Your task to perform on an android device: See recent photos Image 0: 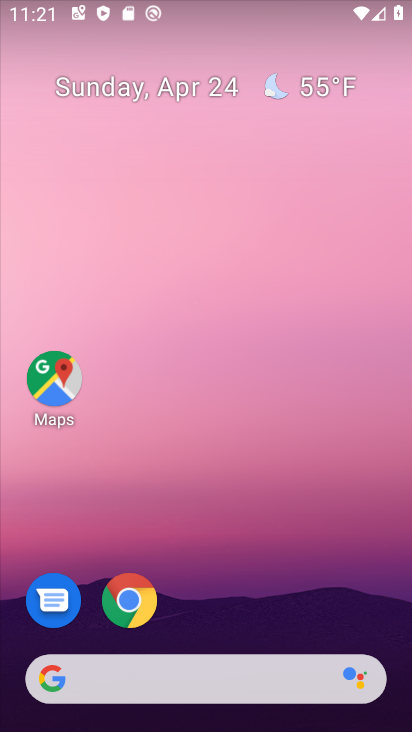
Step 0: drag from (233, 628) to (278, 201)
Your task to perform on an android device: See recent photos Image 1: 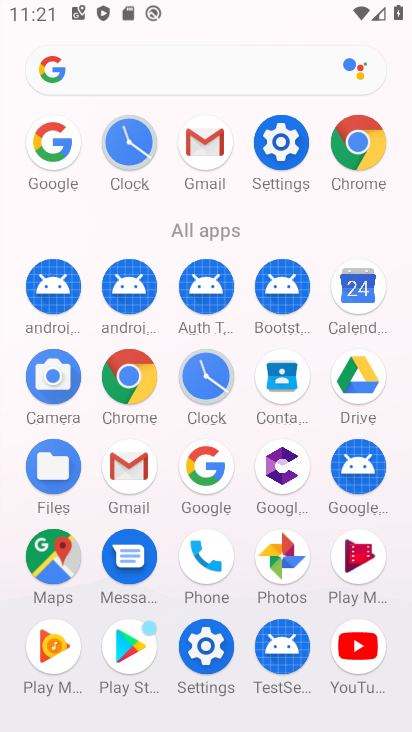
Step 1: click (278, 558)
Your task to perform on an android device: See recent photos Image 2: 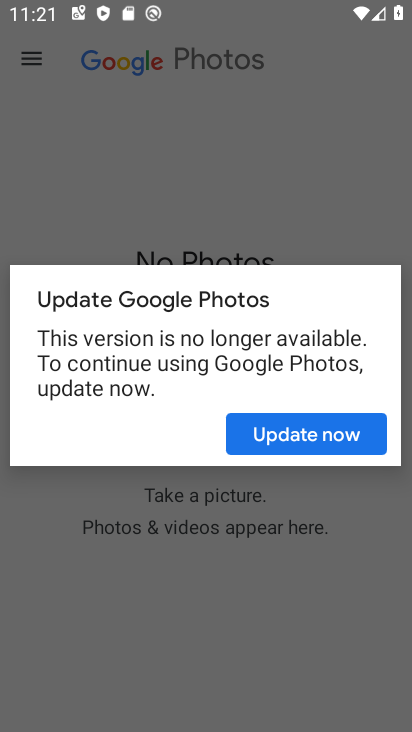
Step 2: click (283, 442)
Your task to perform on an android device: See recent photos Image 3: 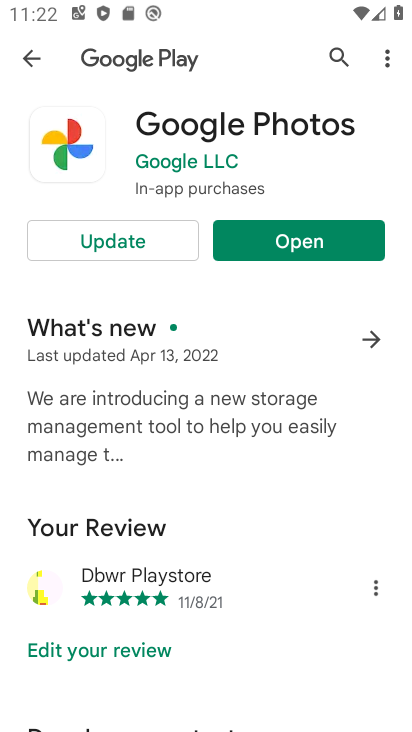
Step 3: click (46, 74)
Your task to perform on an android device: See recent photos Image 4: 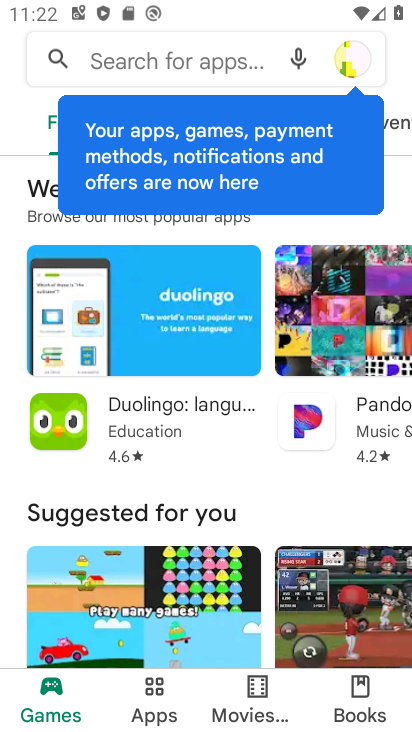
Step 4: press back button
Your task to perform on an android device: See recent photos Image 5: 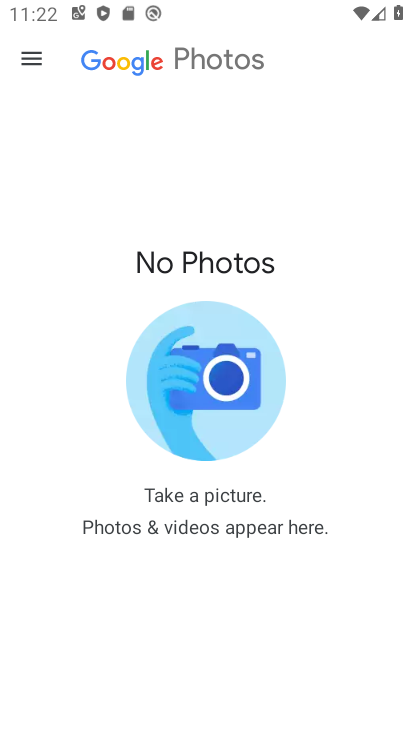
Step 5: click (33, 59)
Your task to perform on an android device: See recent photos Image 6: 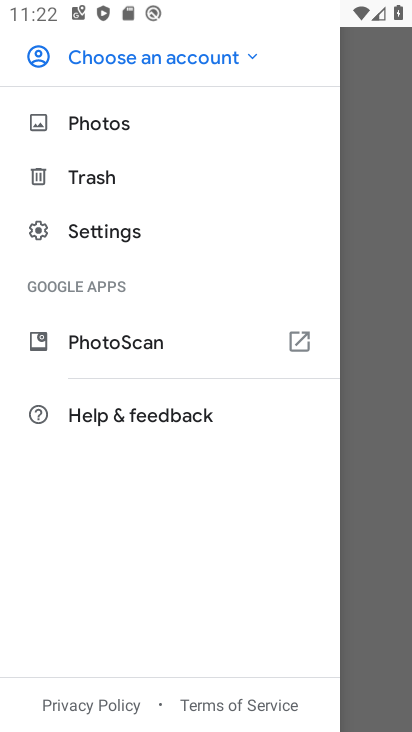
Step 6: click (150, 68)
Your task to perform on an android device: See recent photos Image 7: 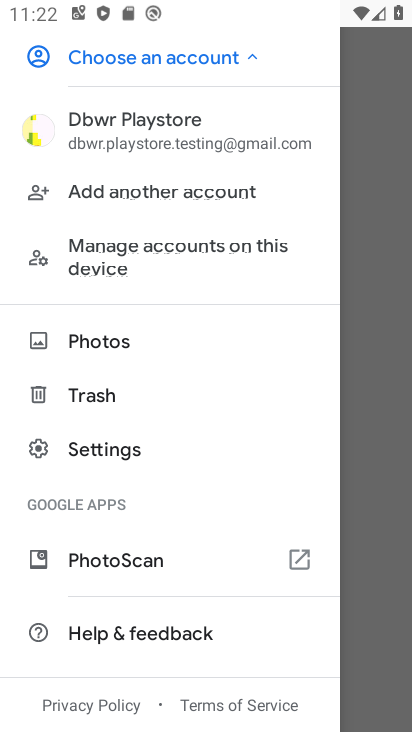
Step 7: click (185, 135)
Your task to perform on an android device: See recent photos Image 8: 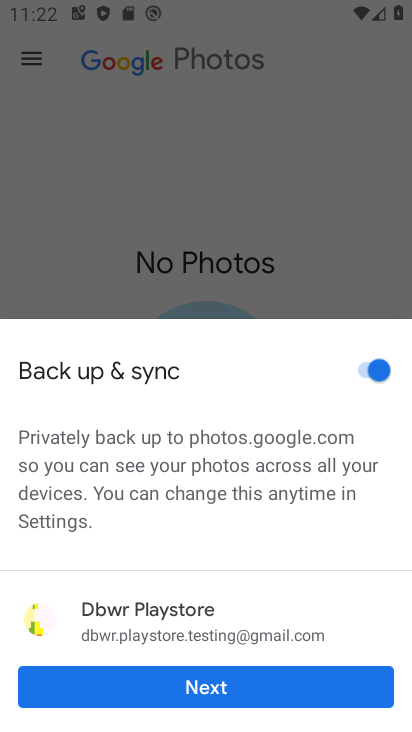
Step 8: click (150, 680)
Your task to perform on an android device: See recent photos Image 9: 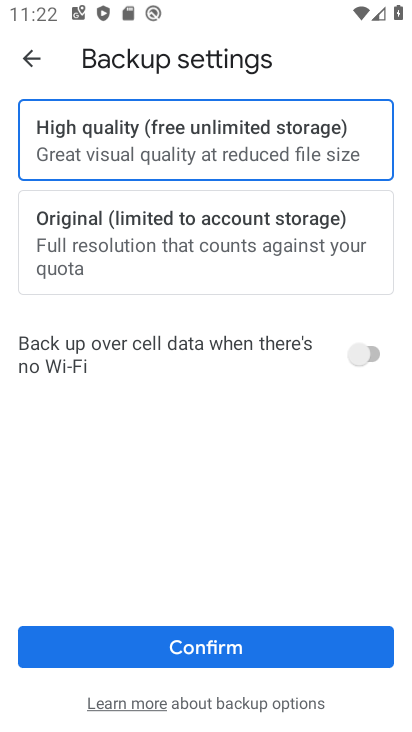
Step 9: click (129, 638)
Your task to perform on an android device: See recent photos Image 10: 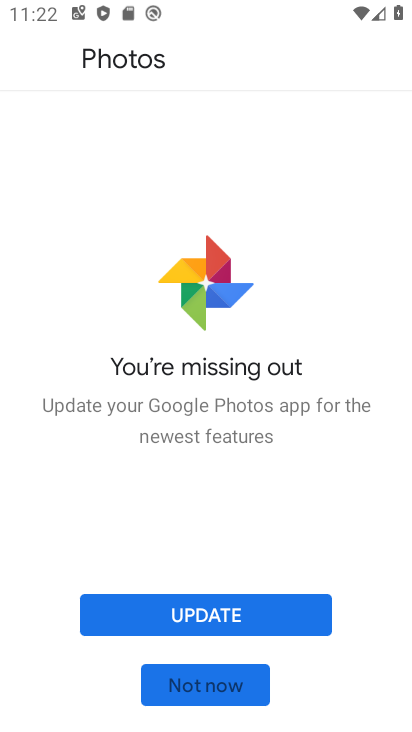
Step 10: click (189, 677)
Your task to perform on an android device: See recent photos Image 11: 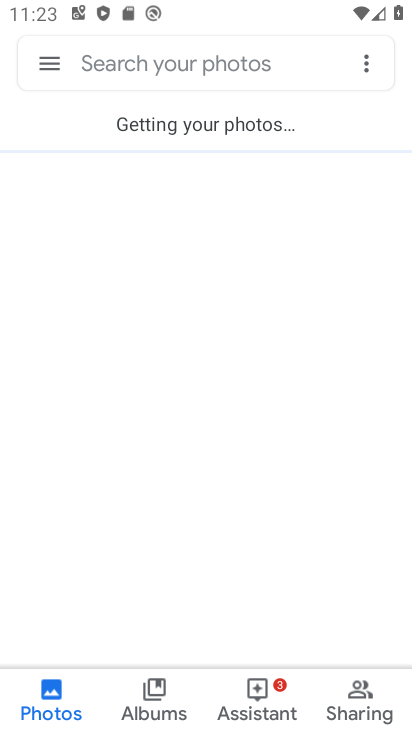
Step 11: task complete